Your task to perform on an android device: change the clock display to show seconds Image 0: 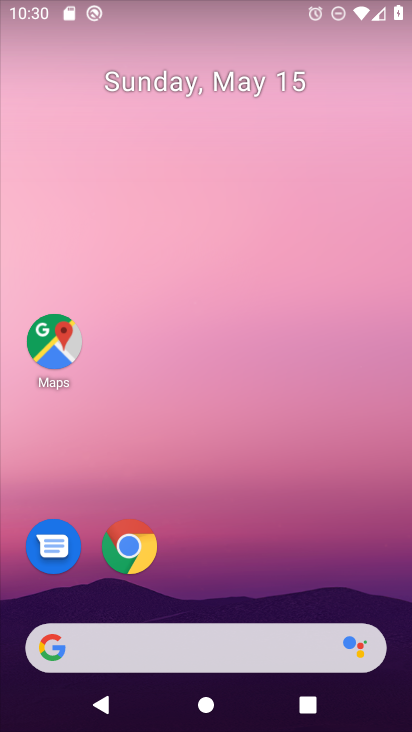
Step 0: drag from (244, 568) to (323, 40)
Your task to perform on an android device: change the clock display to show seconds Image 1: 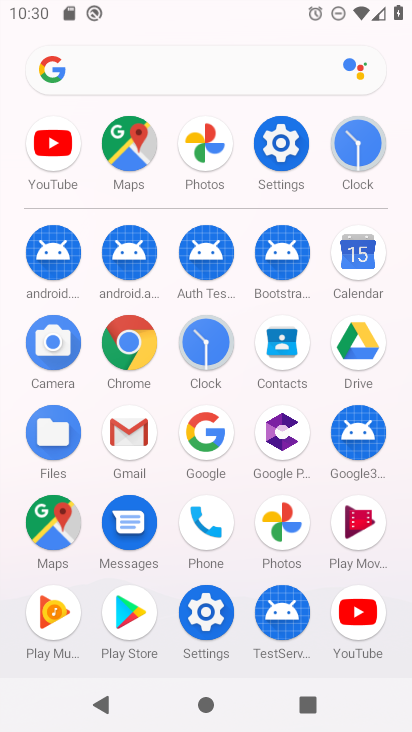
Step 1: click (200, 342)
Your task to perform on an android device: change the clock display to show seconds Image 2: 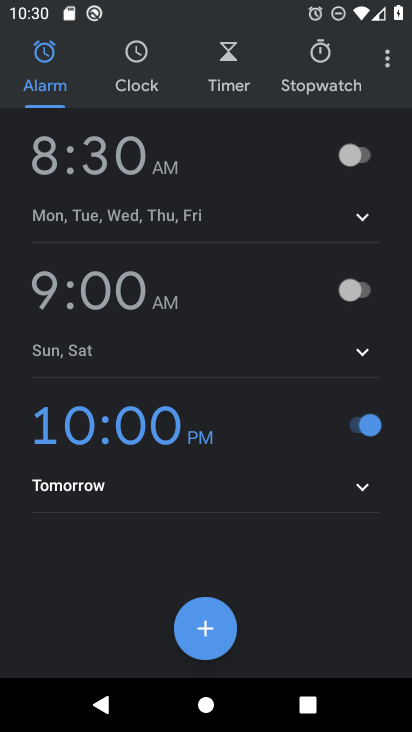
Step 2: click (393, 61)
Your task to perform on an android device: change the clock display to show seconds Image 3: 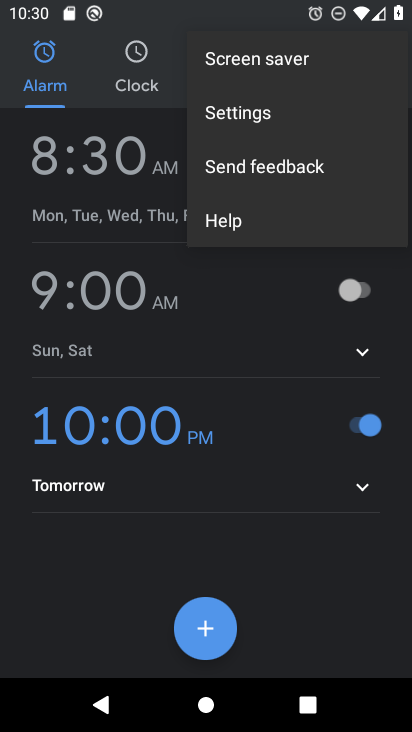
Step 3: click (265, 110)
Your task to perform on an android device: change the clock display to show seconds Image 4: 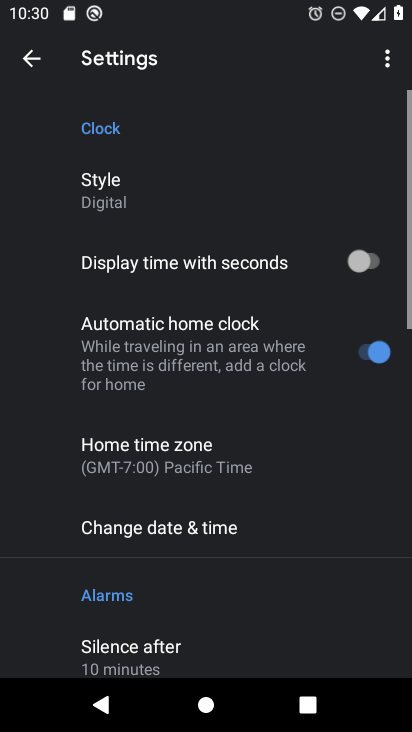
Step 4: click (379, 264)
Your task to perform on an android device: change the clock display to show seconds Image 5: 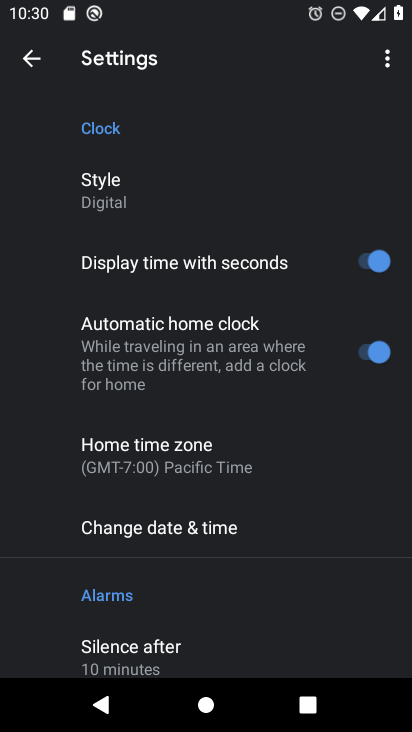
Step 5: task complete